Your task to perform on an android device: set default search engine in the chrome app Image 0: 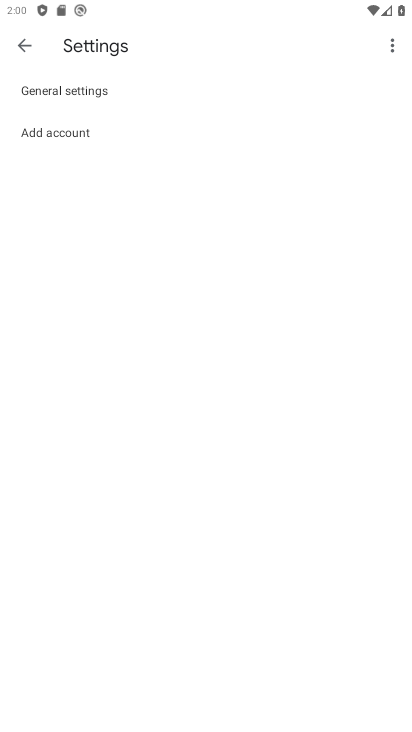
Step 0: press home button
Your task to perform on an android device: set default search engine in the chrome app Image 1: 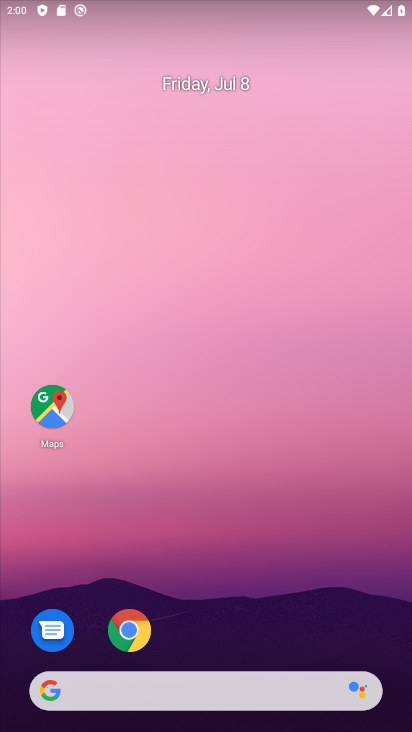
Step 1: drag from (281, 603) to (311, 72)
Your task to perform on an android device: set default search engine in the chrome app Image 2: 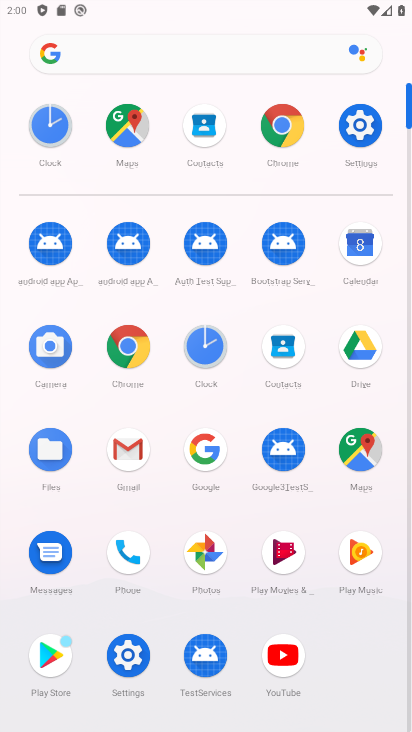
Step 2: click (133, 347)
Your task to perform on an android device: set default search engine in the chrome app Image 3: 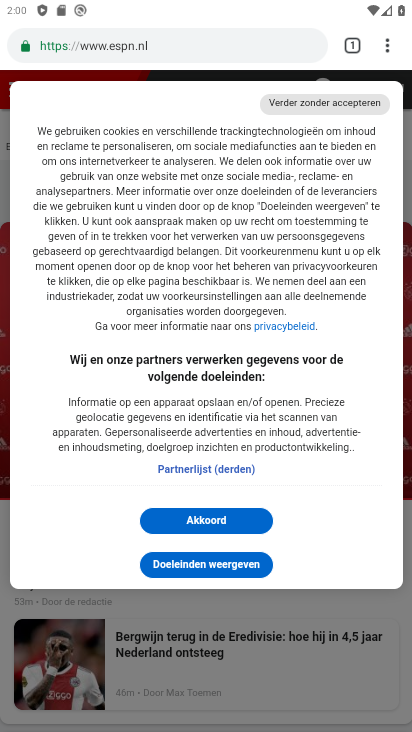
Step 3: drag from (394, 40) to (222, 551)
Your task to perform on an android device: set default search engine in the chrome app Image 4: 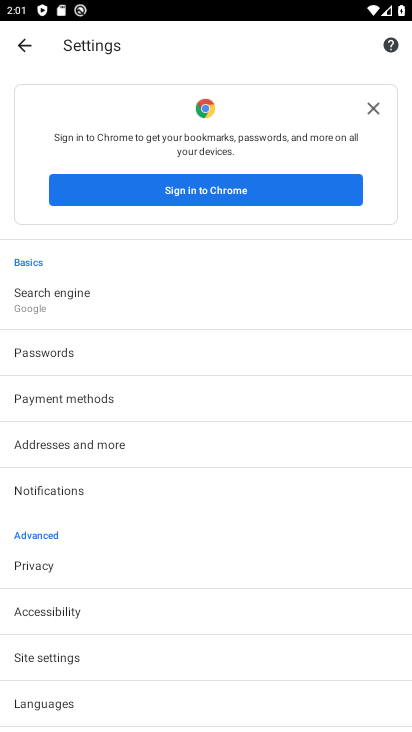
Step 4: click (36, 291)
Your task to perform on an android device: set default search engine in the chrome app Image 5: 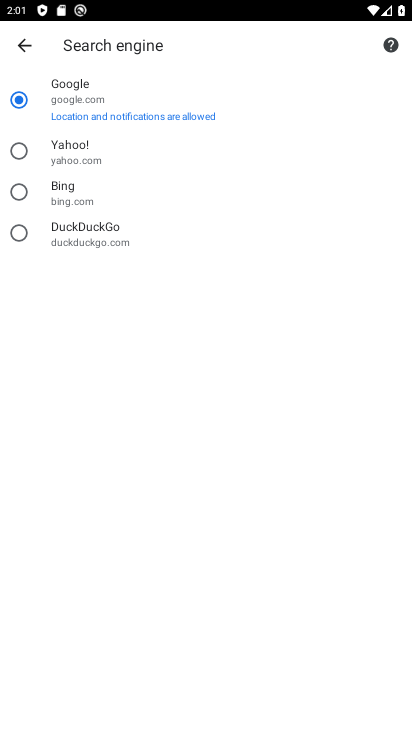
Step 5: task complete